Your task to perform on an android device: check battery use Image 0: 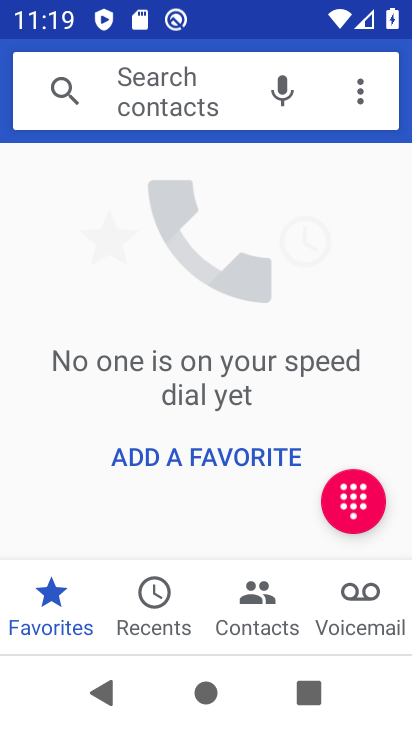
Step 0: press home button
Your task to perform on an android device: check battery use Image 1: 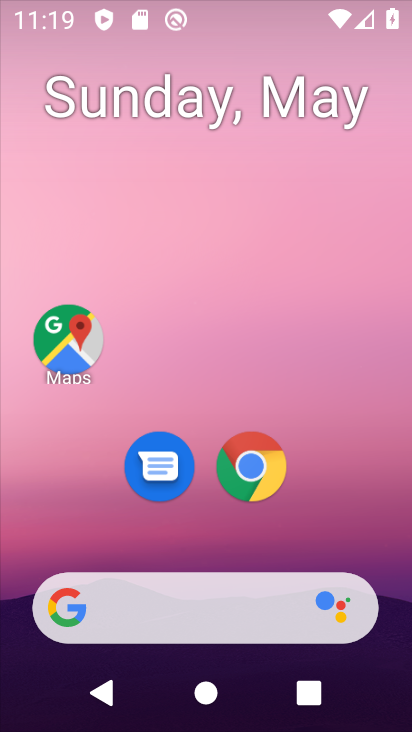
Step 1: drag from (210, 487) to (208, 90)
Your task to perform on an android device: check battery use Image 2: 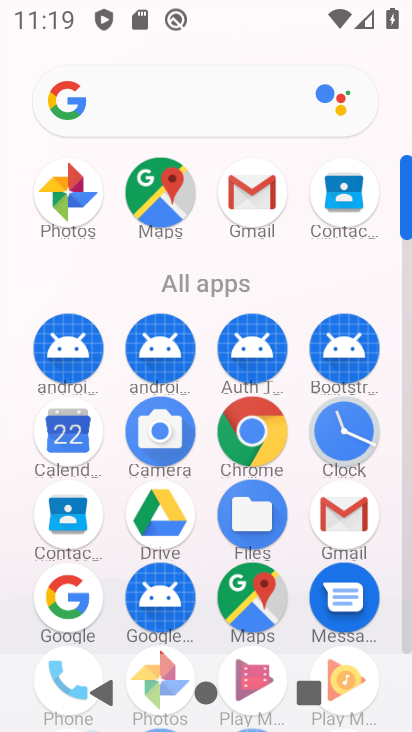
Step 2: drag from (213, 499) to (200, 186)
Your task to perform on an android device: check battery use Image 3: 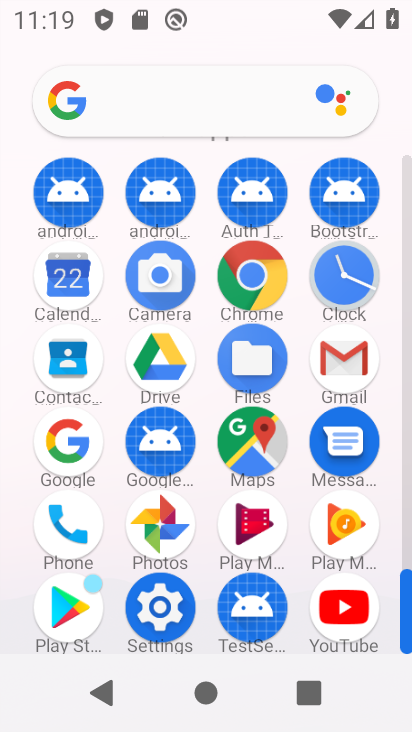
Step 3: click (159, 607)
Your task to perform on an android device: check battery use Image 4: 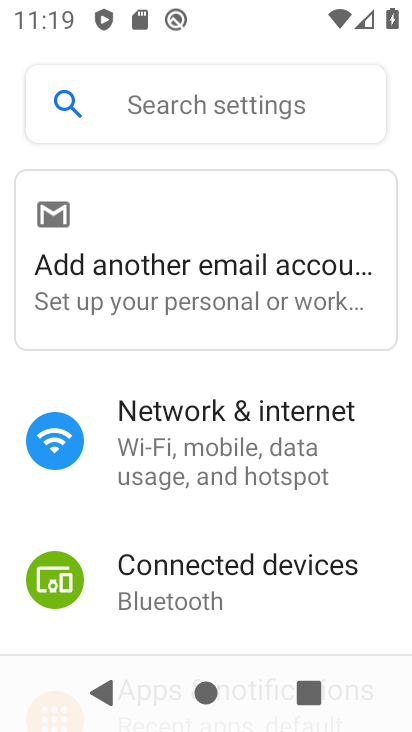
Step 4: drag from (229, 460) to (292, 130)
Your task to perform on an android device: check battery use Image 5: 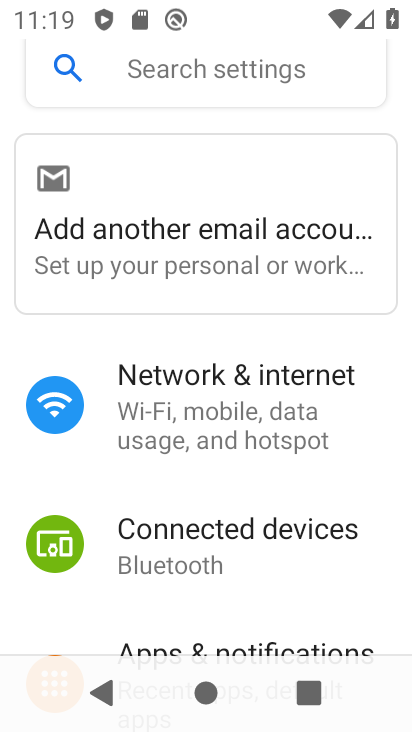
Step 5: drag from (217, 571) to (203, 236)
Your task to perform on an android device: check battery use Image 6: 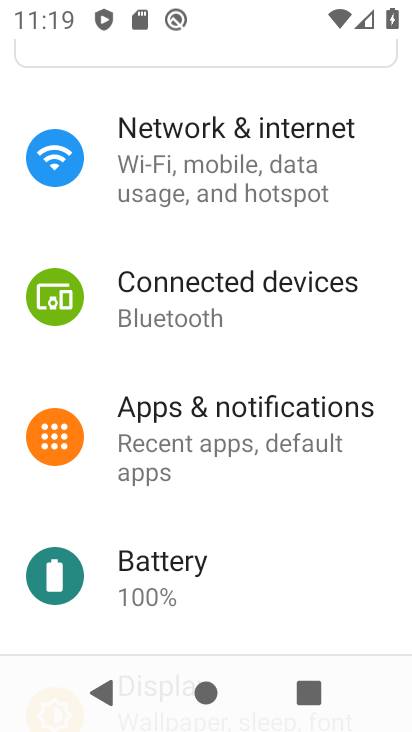
Step 6: click (179, 580)
Your task to perform on an android device: check battery use Image 7: 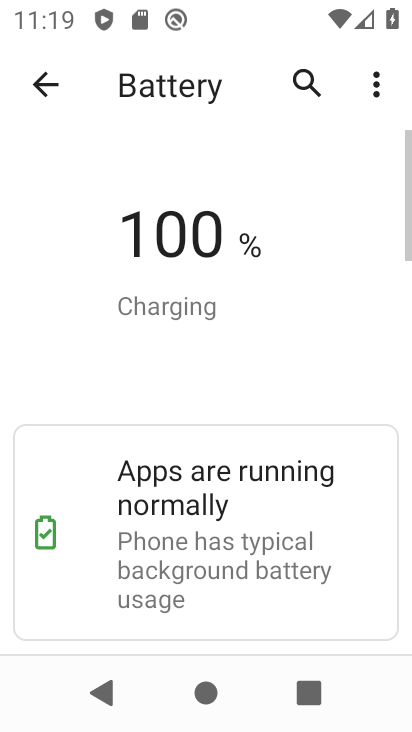
Step 7: click (373, 78)
Your task to perform on an android device: check battery use Image 8: 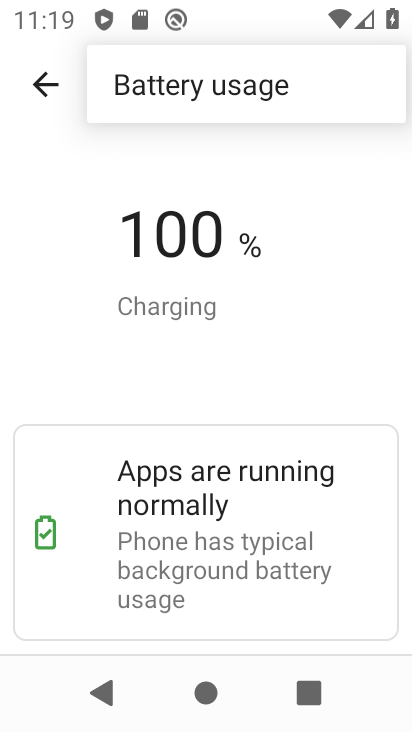
Step 8: click (218, 88)
Your task to perform on an android device: check battery use Image 9: 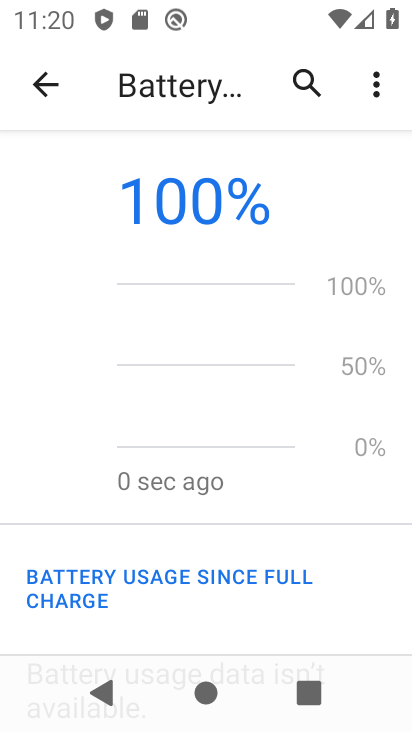
Step 9: task complete